Your task to perform on an android device: Open the calendar app, open the side menu, and click the "Day" option Image 0: 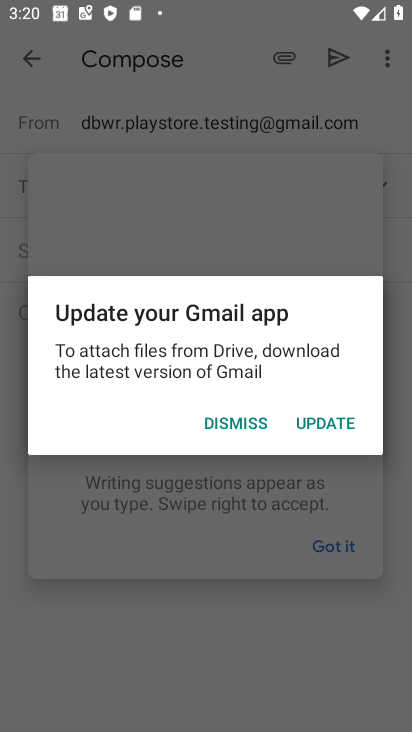
Step 0: press home button
Your task to perform on an android device: Open the calendar app, open the side menu, and click the "Day" option Image 1: 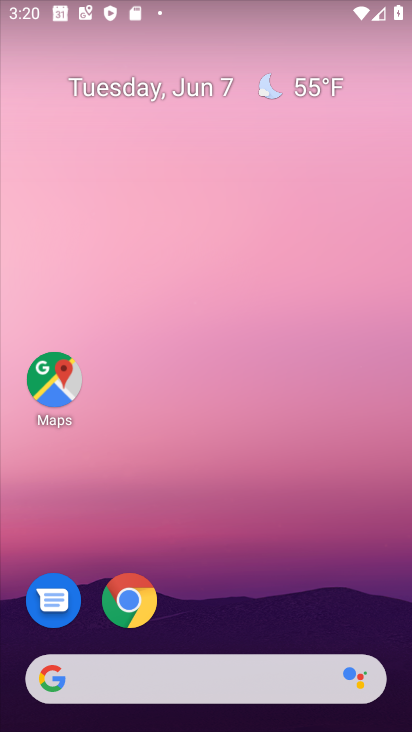
Step 1: drag from (204, 610) to (221, 56)
Your task to perform on an android device: Open the calendar app, open the side menu, and click the "Day" option Image 2: 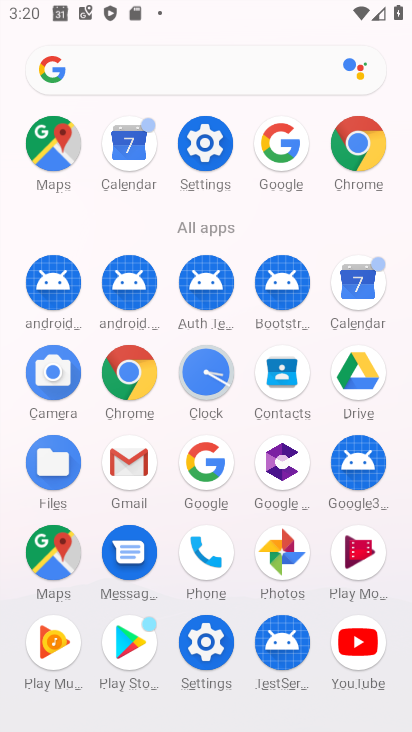
Step 2: click (354, 301)
Your task to perform on an android device: Open the calendar app, open the side menu, and click the "Day" option Image 3: 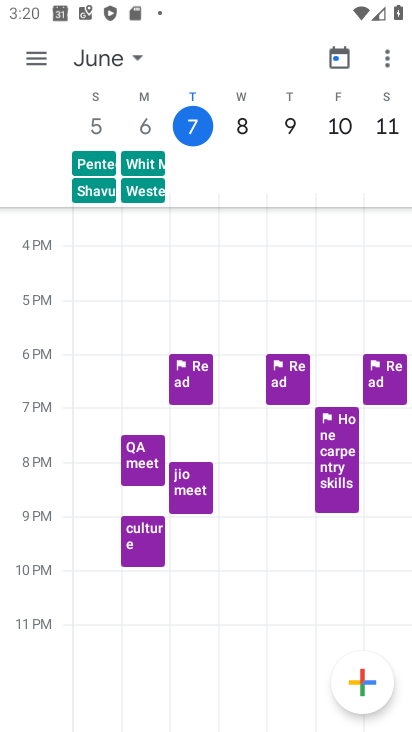
Step 3: click (42, 65)
Your task to perform on an android device: Open the calendar app, open the side menu, and click the "Day" option Image 4: 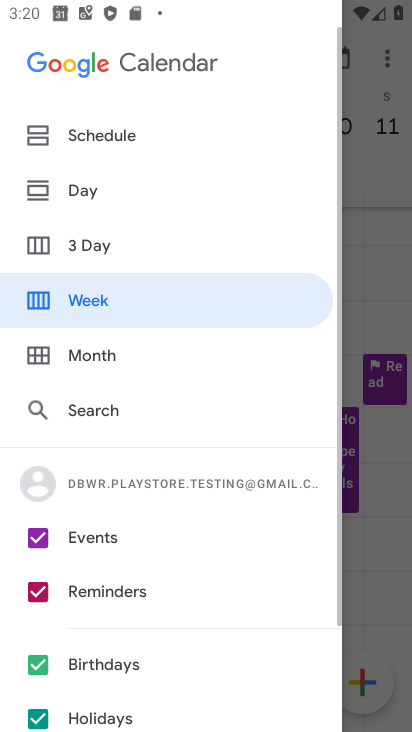
Step 4: click (101, 195)
Your task to perform on an android device: Open the calendar app, open the side menu, and click the "Day" option Image 5: 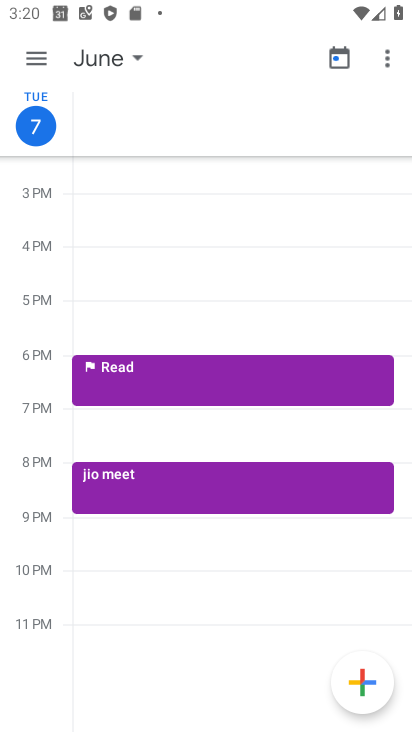
Step 5: task complete